Your task to perform on an android device: choose inbox layout in the gmail app Image 0: 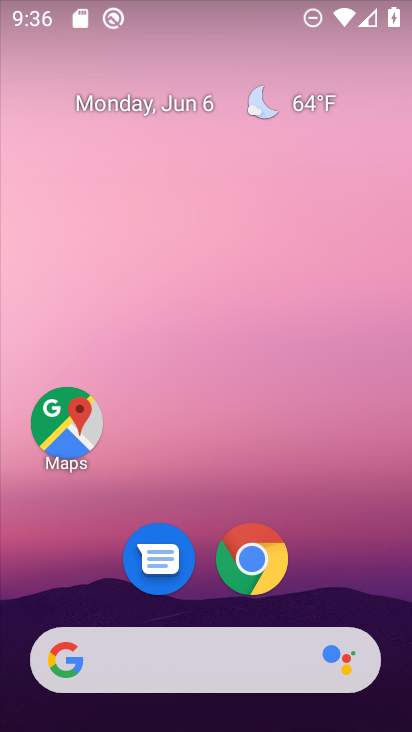
Step 0: drag from (225, 708) to (225, 191)
Your task to perform on an android device: choose inbox layout in the gmail app Image 1: 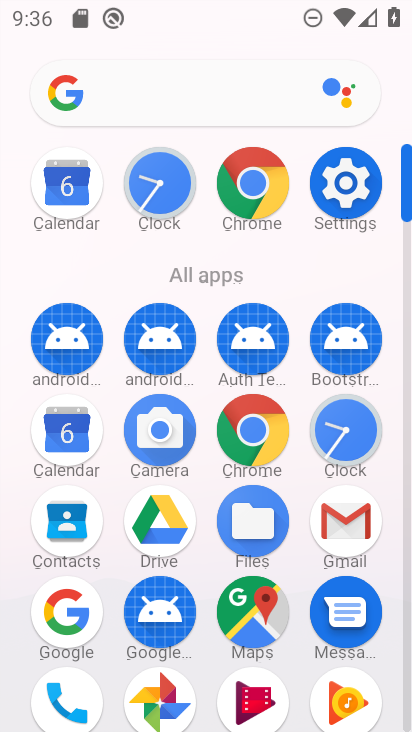
Step 1: click (354, 519)
Your task to perform on an android device: choose inbox layout in the gmail app Image 2: 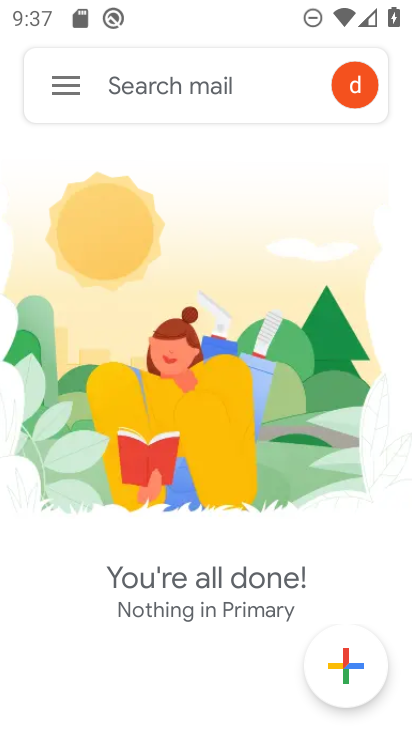
Step 2: click (59, 81)
Your task to perform on an android device: choose inbox layout in the gmail app Image 3: 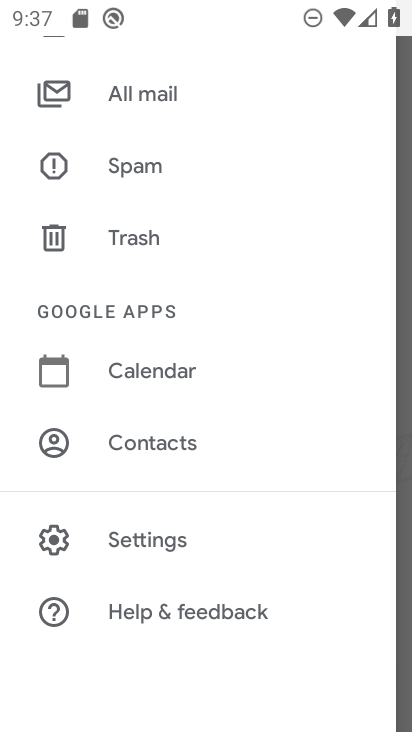
Step 3: click (127, 531)
Your task to perform on an android device: choose inbox layout in the gmail app Image 4: 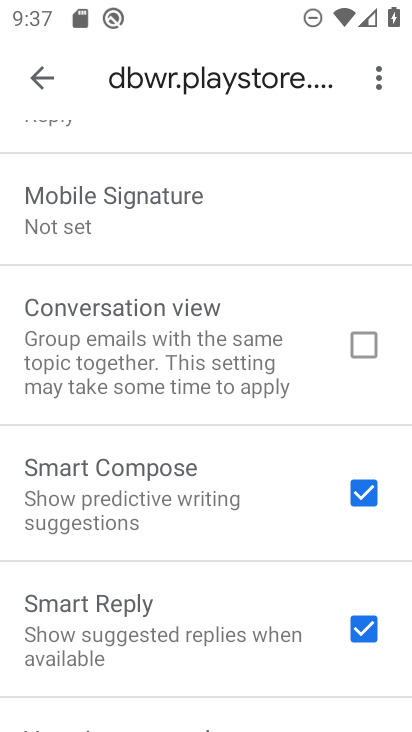
Step 4: drag from (134, 177) to (165, 619)
Your task to perform on an android device: choose inbox layout in the gmail app Image 5: 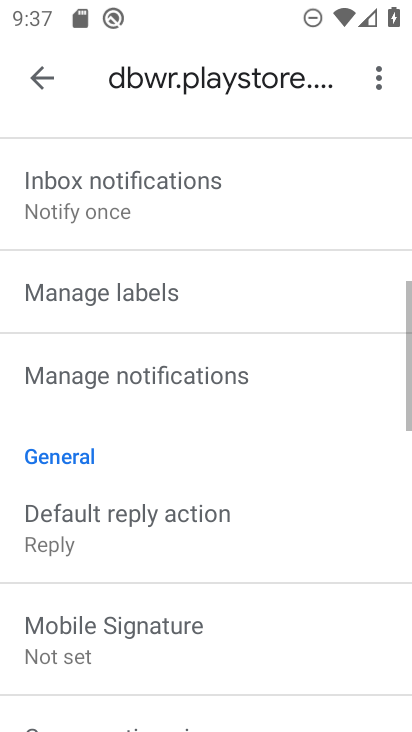
Step 5: drag from (234, 182) to (248, 583)
Your task to perform on an android device: choose inbox layout in the gmail app Image 6: 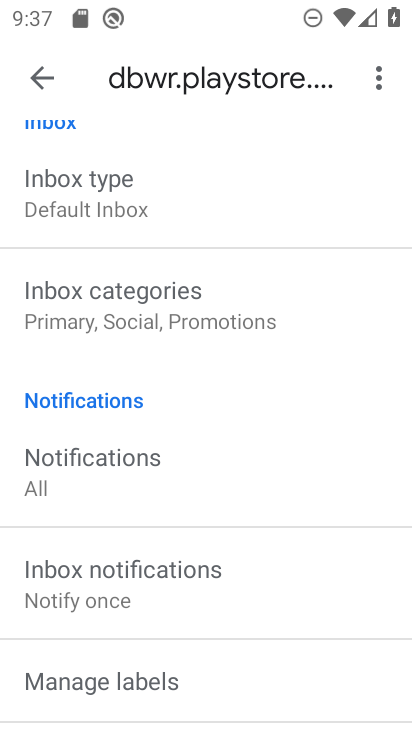
Step 6: drag from (267, 172) to (280, 603)
Your task to perform on an android device: choose inbox layout in the gmail app Image 7: 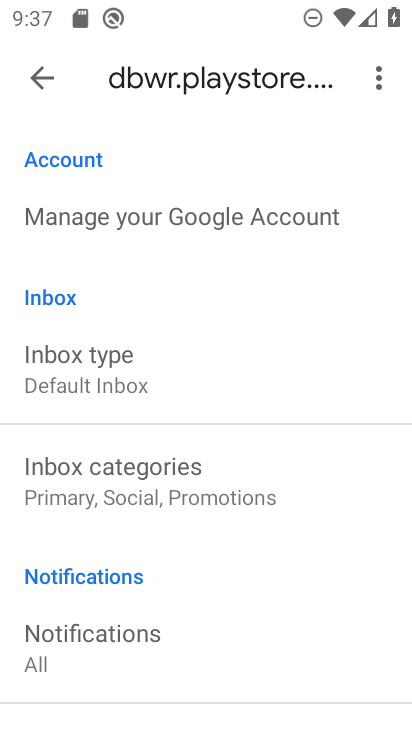
Step 7: click (79, 377)
Your task to perform on an android device: choose inbox layout in the gmail app Image 8: 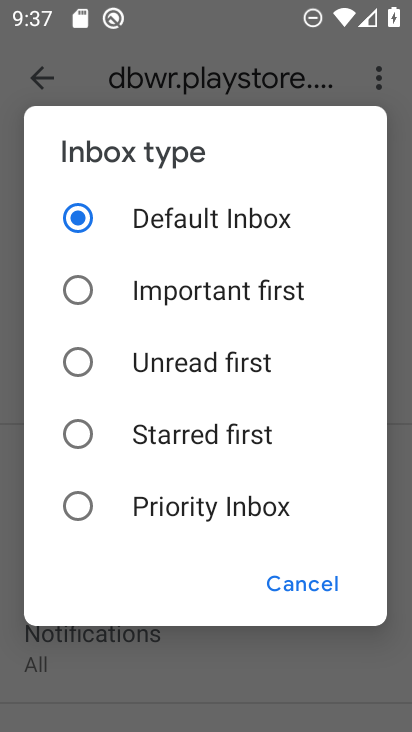
Step 8: click (78, 511)
Your task to perform on an android device: choose inbox layout in the gmail app Image 9: 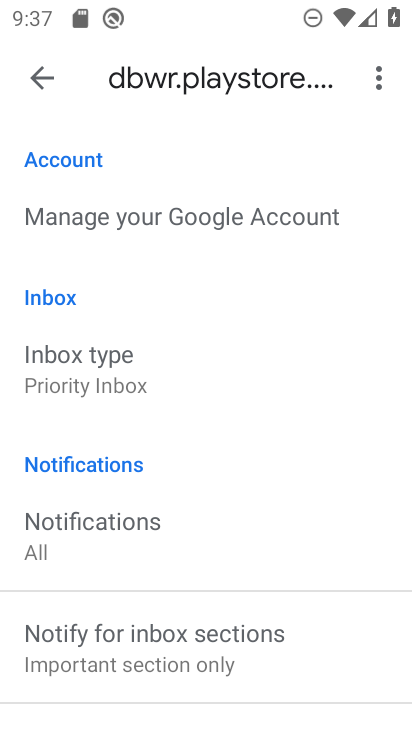
Step 9: task complete